Your task to perform on an android device: Go to Reddit.com Image 0: 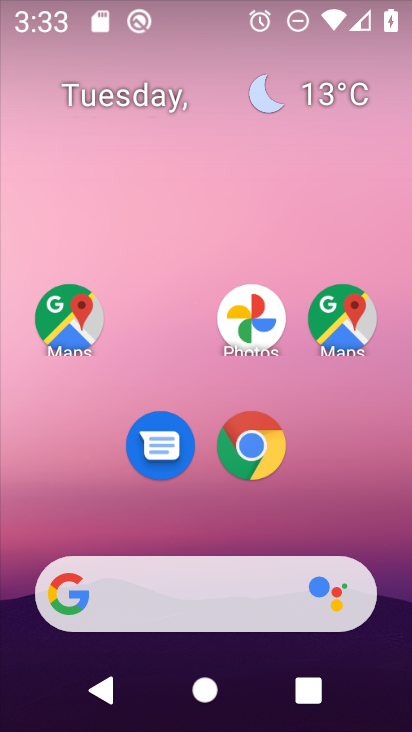
Step 0: drag from (390, 554) to (386, 197)
Your task to perform on an android device: Go to Reddit.com Image 1: 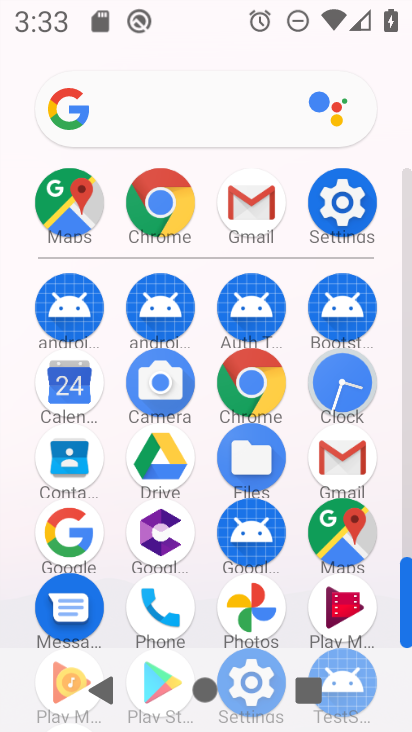
Step 1: click (267, 397)
Your task to perform on an android device: Go to Reddit.com Image 2: 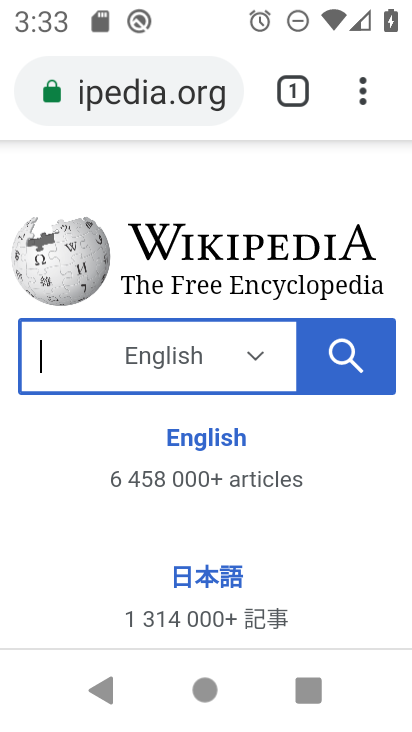
Step 2: press back button
Your task to perform on an android device: Go to Reddit.com Image 3: 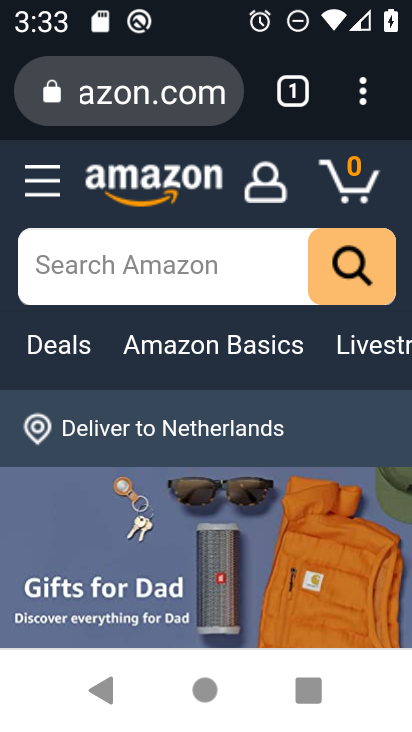
Step 3: press back button
Your task to perform on an android device: Go to Reddit.com Image 4: 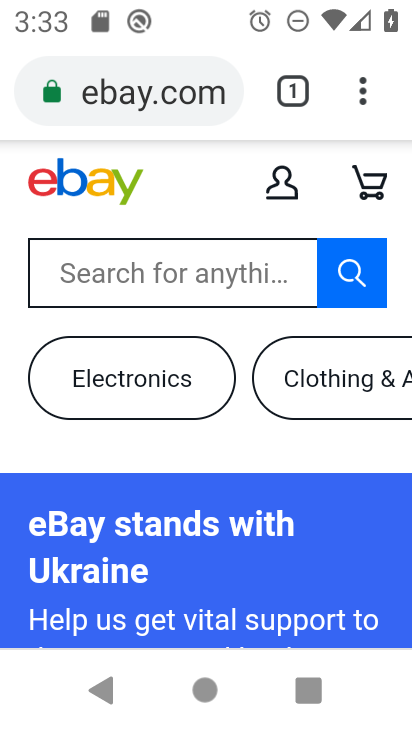
Step 4: press back button
Your task to perform on an android device: Go to Reddit.com Image 5: 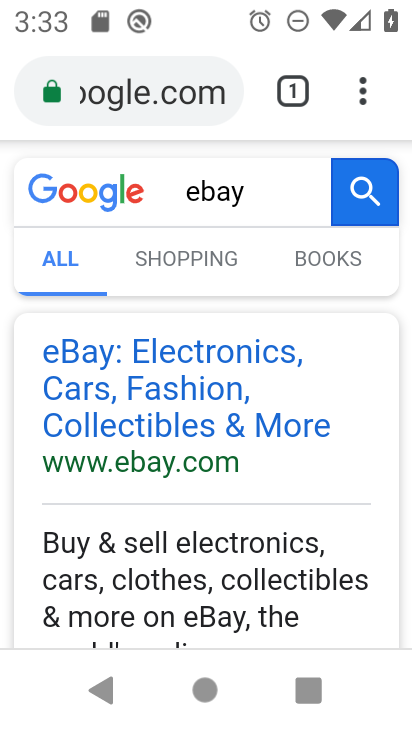
Step 5: press back button
Your task to perform on an android device: Go to Reddit.com Image 6: 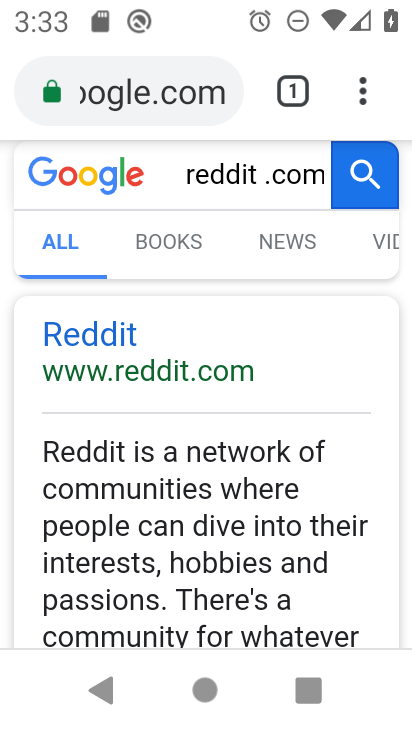
Step 6: click (93, 336)
Your task to perform on an android device: Go to Reddit.com Image 7: 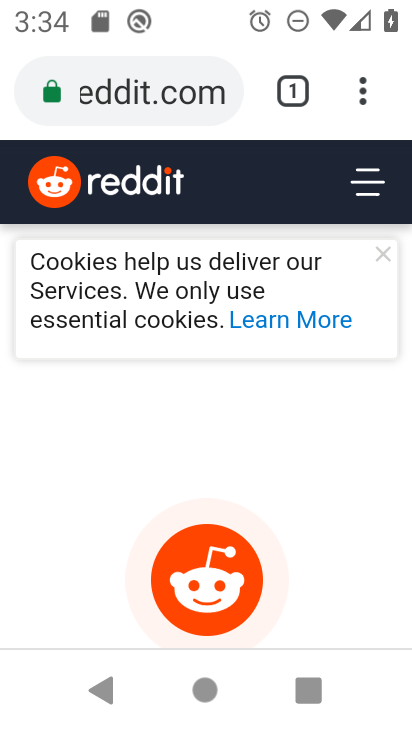
Step 7: task complete